Your task to perform on an android device: turn off improve location accuracy Image 0: 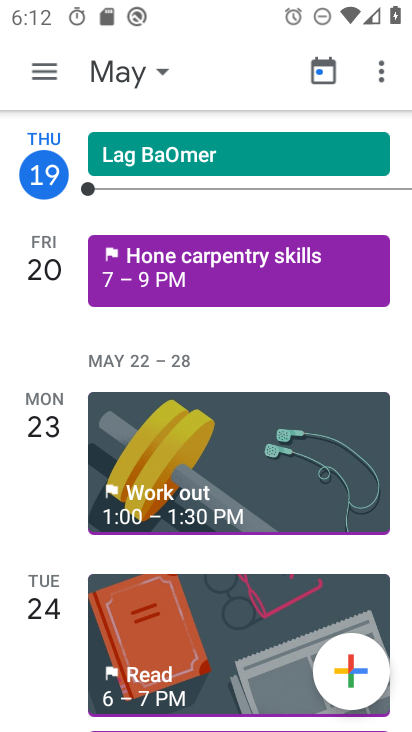
Step 0: press home button
Your task to perform on an android device: turn off improve location accuracy Image 1: 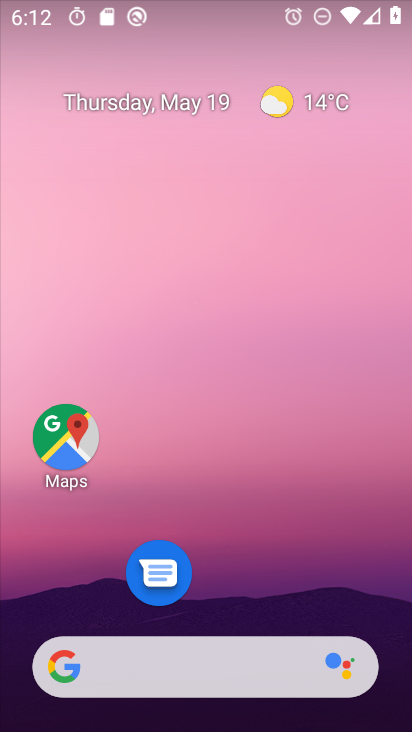
Step 1: drag from (233, 587) to (189, 83)
Your task to perform on an android device: turn off improve location accuracy Image 2: 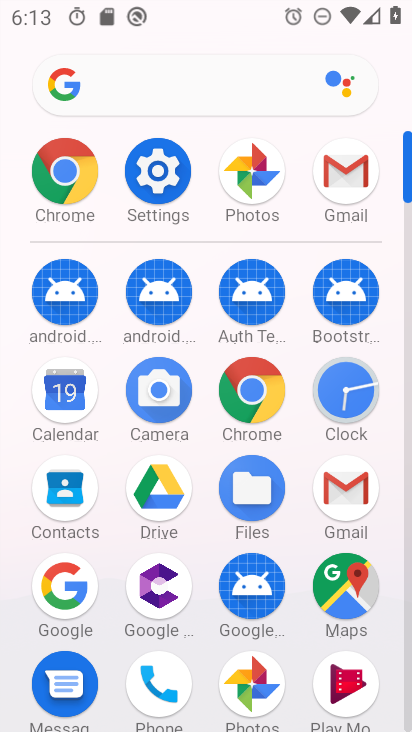
Step 2: click (158, 203)
Your task to perform on an android device: turn off improve location accuracy Image 3: 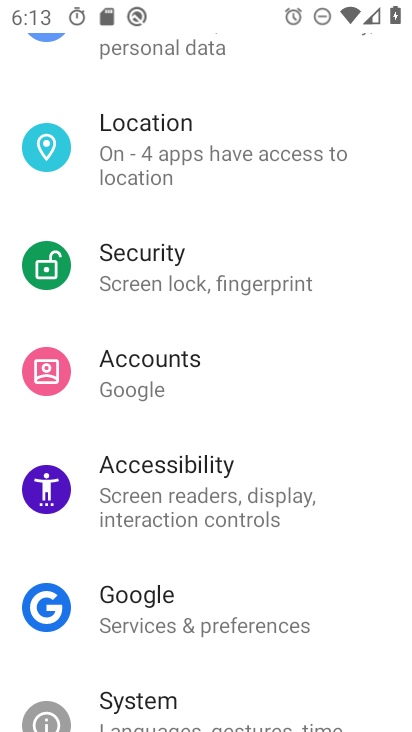
Step 3: drag from (165, 652) to (157, 334)
Your task to perform on an android device: turn off improve location accuracy Image 4: 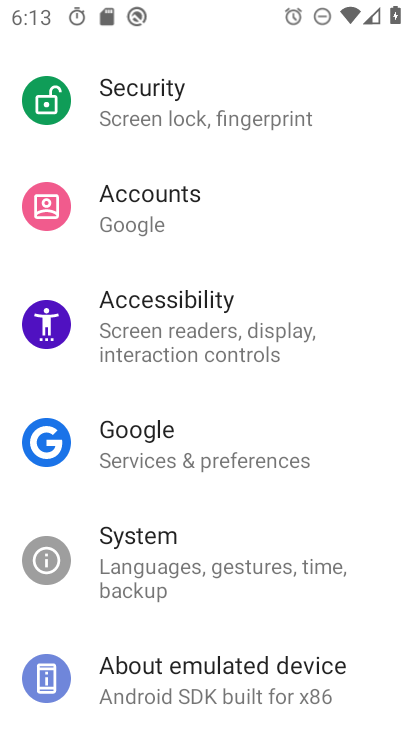
Step 4: drag from (158, 237) to (73, 580)
Your task to perform on an android device: turn off improve location accuracy Image 5: 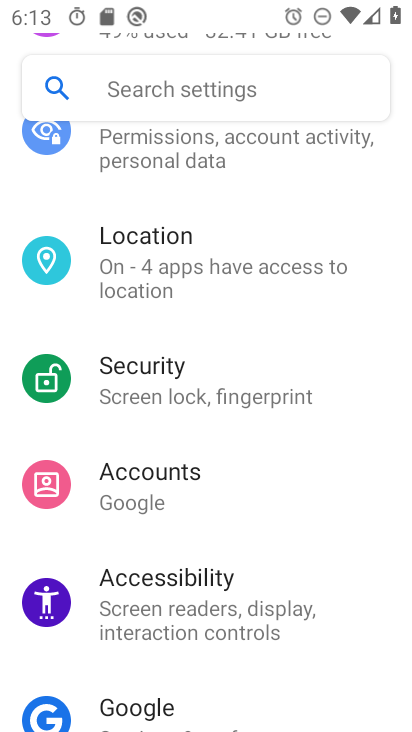
Step 5: click (184, 272)
Your task to perform on an android device: turn off improve location accuracy Image 6: 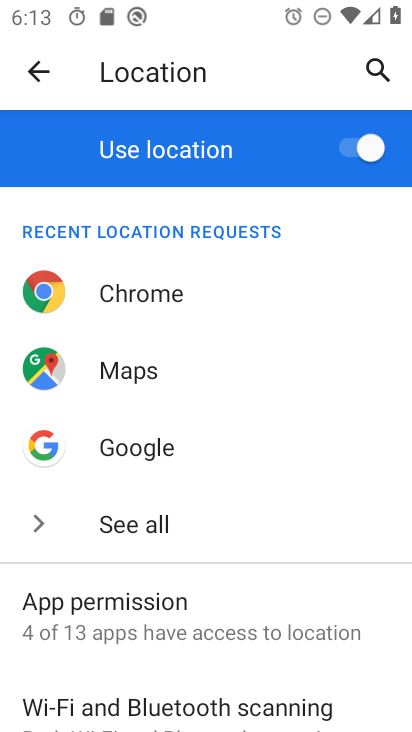
Step 6: drag from (112, 655) to (90, 475)
Your task to perform on an android device: turn off improve location accuracy Image 7: 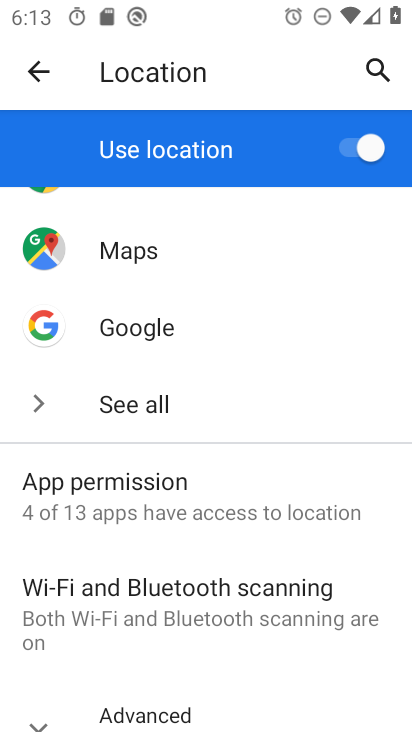
Step 7: click (133, 713)
Your task to perform on an android device: turn off improve location accuracy Image 8: 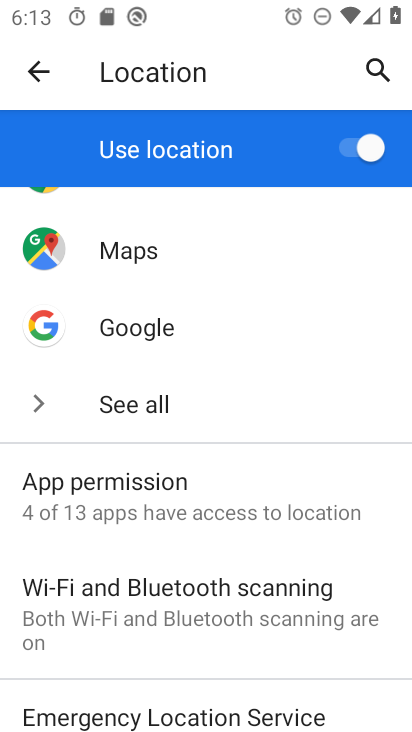
Step 8: drag from (116, 684) to (83, 283)
Your task to perform on an android device: turn off improve location accuracy Image 9: 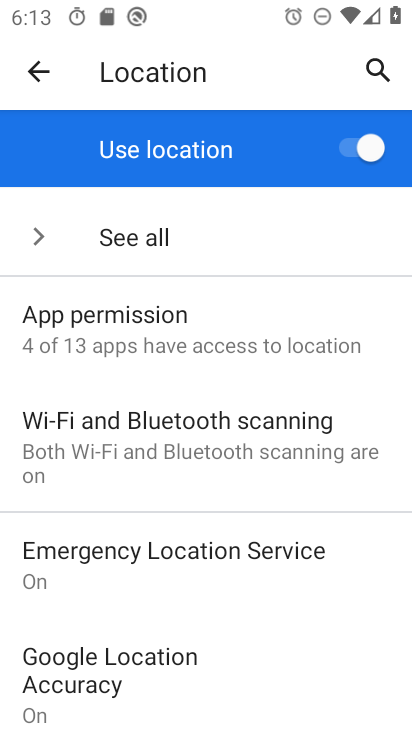
Step 9: drag from (126, 376) to (115, 291)
Your task to perform on an android device: turn off improve location accuracy Image 10: 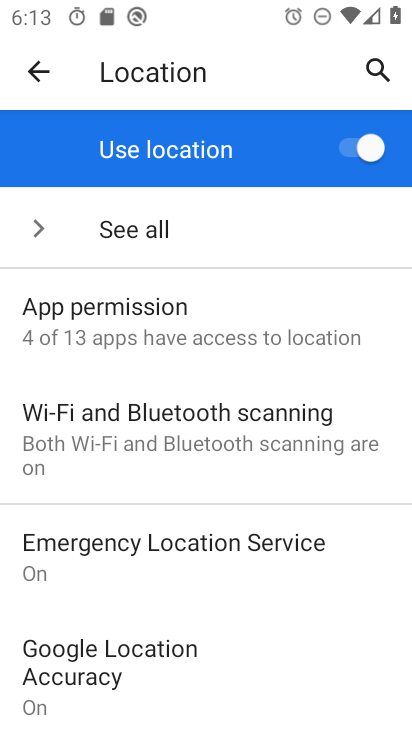
Step 10: drag from (130, 663) to (140, 170)
Your task to perform on an android device: turn off improve location accuracy Image 11: 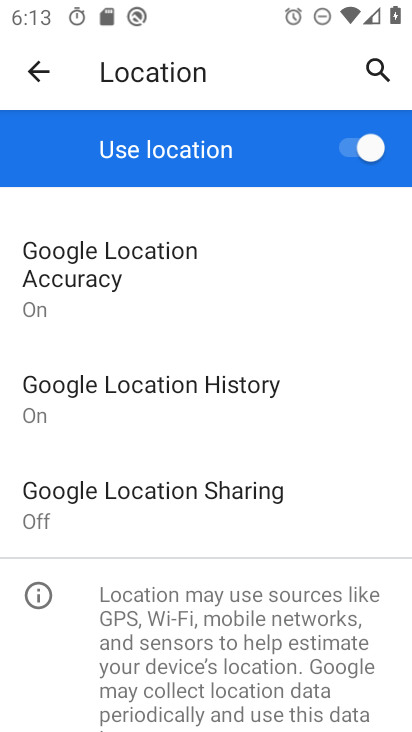
Step 11: drag from (168, 284) to (169, 481)
Your task to perform on an android device: turn off improve location accuracy Image 12: 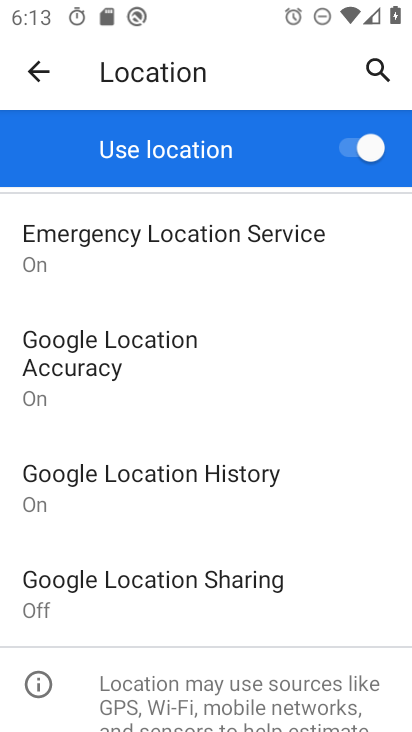
Step 12: click (88, 390)
Your task to perform on an android device: turn off improve location accuracy Image 13: 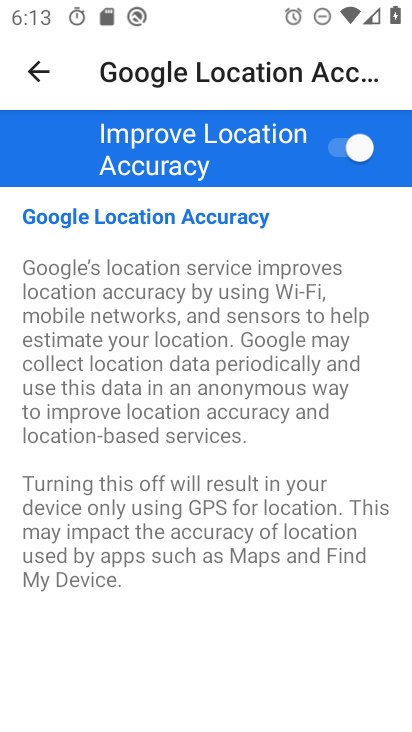
Step 13: click (347, 141)
Your task to perform on an android device: turn off improve location accuracy Image 14: 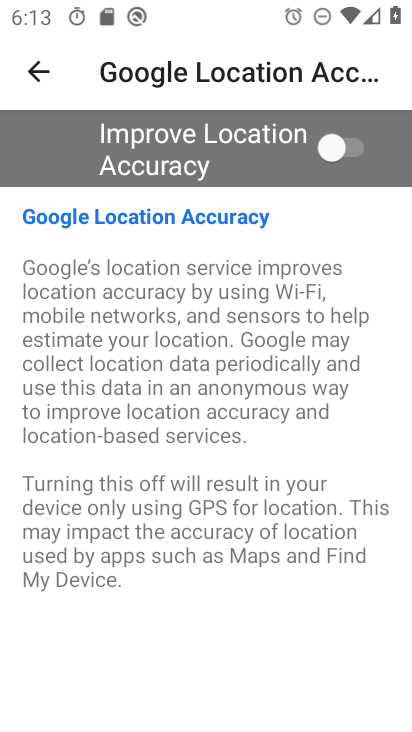
Step 14: task complete